Your task to perform on an android device: open a bookmark in the chrome app Image 0: 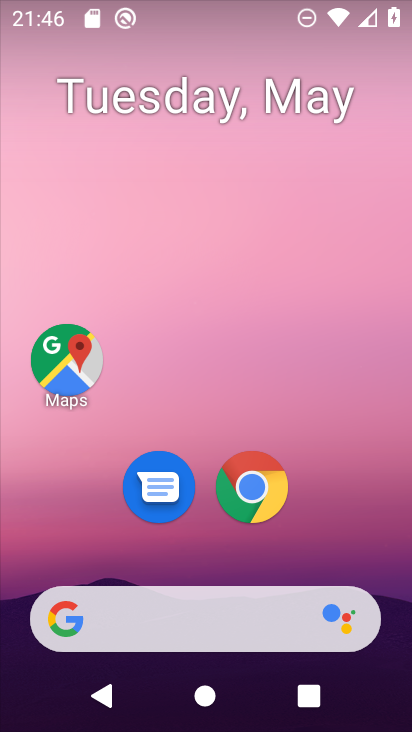
Step 0: press home button
Your task to perform on an android device: open a bookmark in the chrome app Image 1: 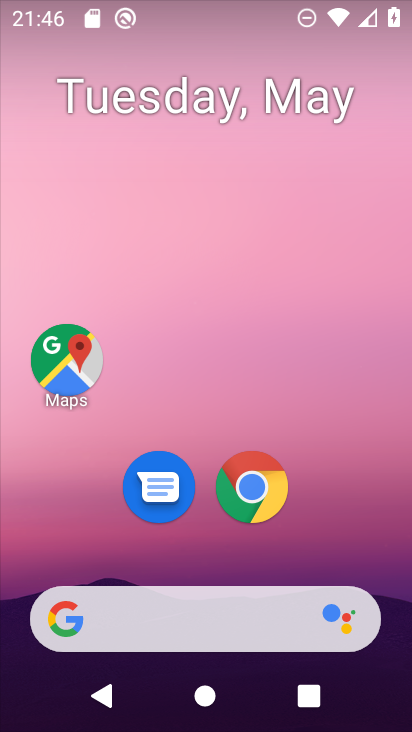
Step 1: click (257, 494)
Your task to perform on an android device: open a bookmark in the chrome app Image 2: 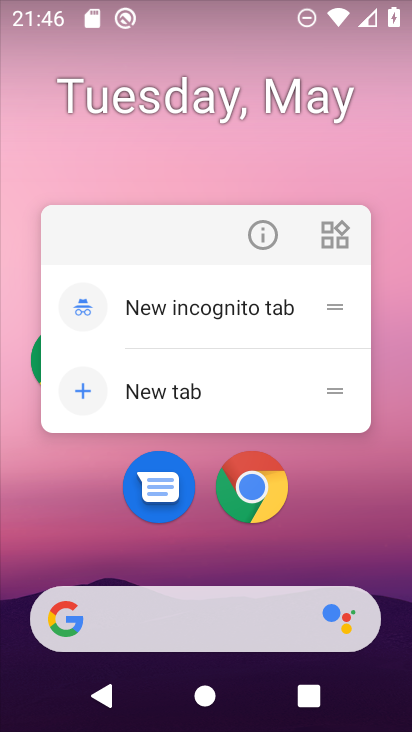
Step 2: click (257, 496)
Your task to perform on an android device: open a bookmark in the chrome app Image 3: 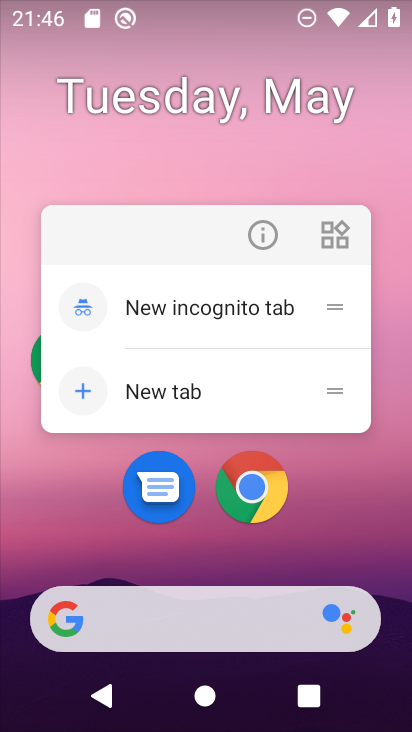
Step 3: click (257, 496)
Your task to perform on an android device: open a bookmark in the chrome app Image 4: 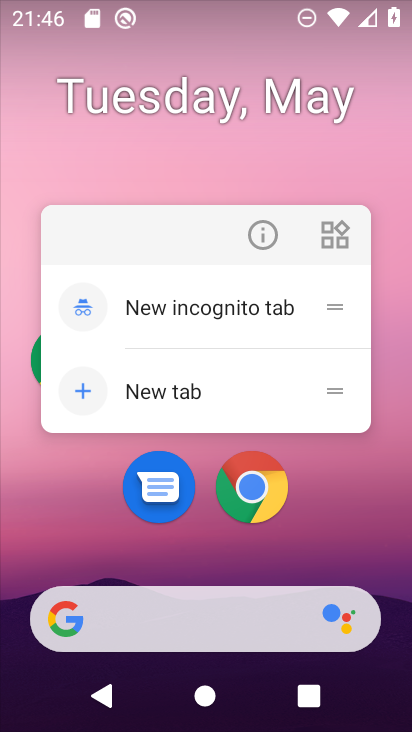
Step 4: click (246, 496)
Your task to perform on an android device: open a bookmark in the chrome app Image 5: 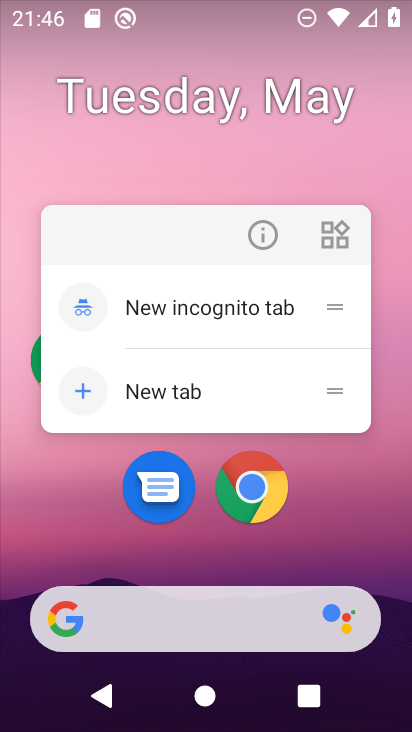
Step 5: click (259, 494)
Your task to perform on an android device: open a bookmark in the chrome app Image 6: 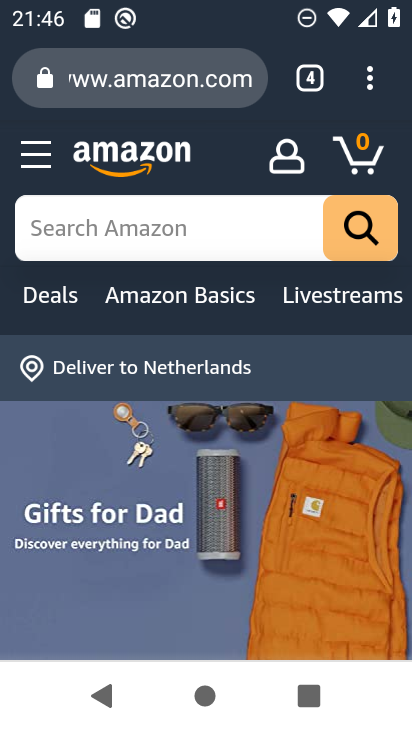
Step 6: task complete